Your task to perform on an android device: Go to display settings Image 0: 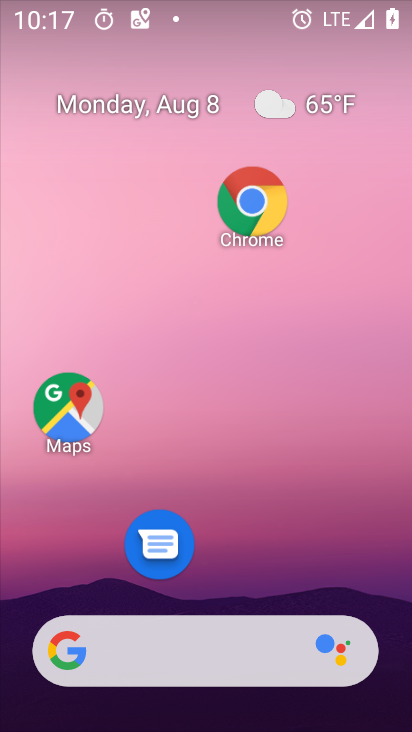
Step 0: press home button
Your task to perform on an android device: Go to display settings Image 1: 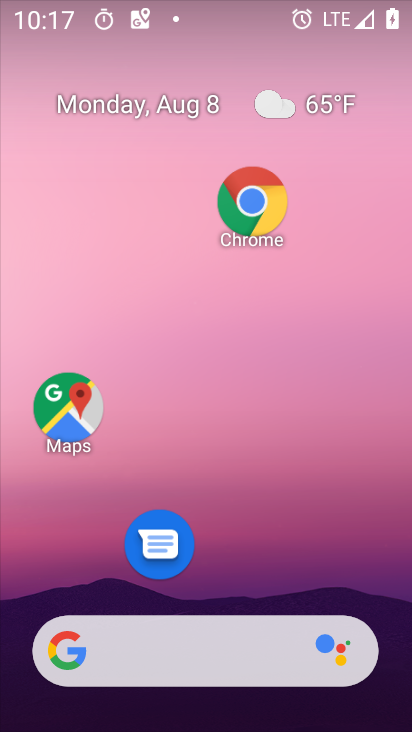
Step 1: drag from (216, 578) to (195, 85)
Your task to perform on an android device: Go to display settings Image 2: 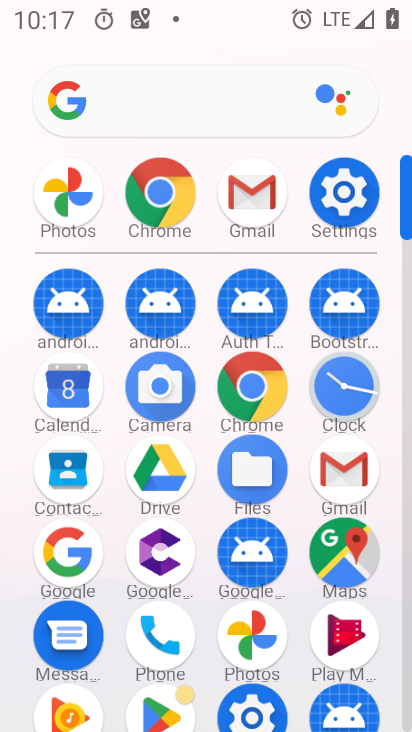
Step 2: click (340, 184)
Your task to perform on an android device: Go to display settings Image 3: 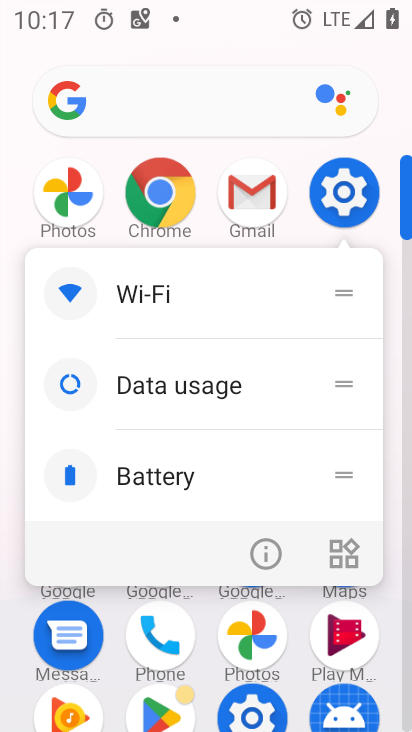
Step 3: click (342, 190)
Your task to perform on an android device: Go to display settings Image 4: 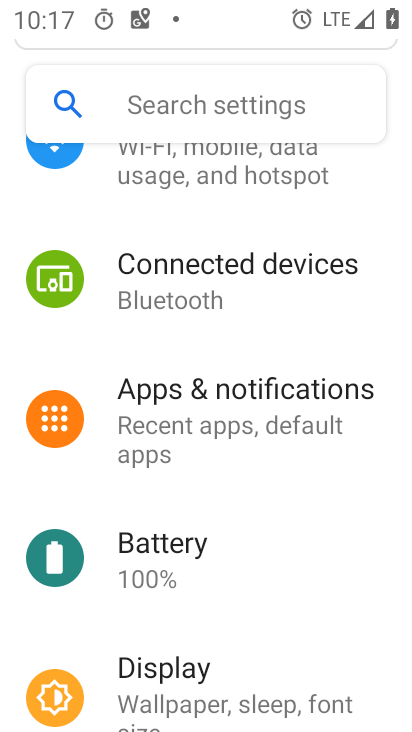
Step 4: click (204, 678)
Your task to perform on an android device: Go to display settings Image 5: 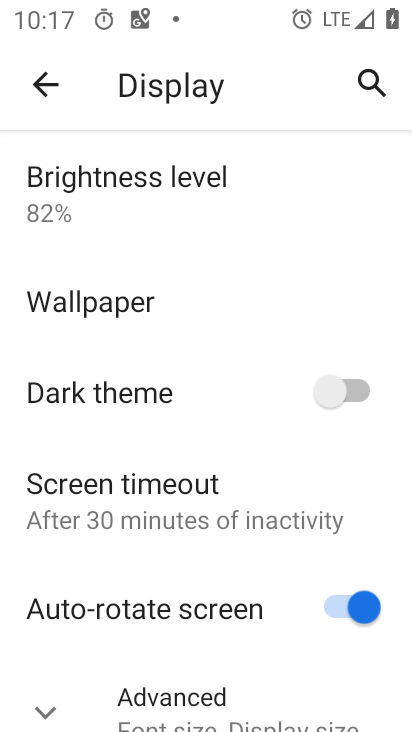
Step 5: click (35, 707)
Your task to perform on an android device: Go to display settings Image 6: 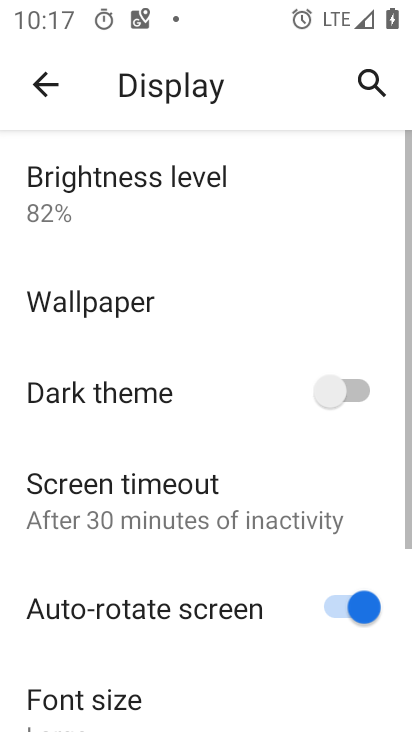
Step 6: task complete